Your task to perform on an android device: change the clock style Image 0: 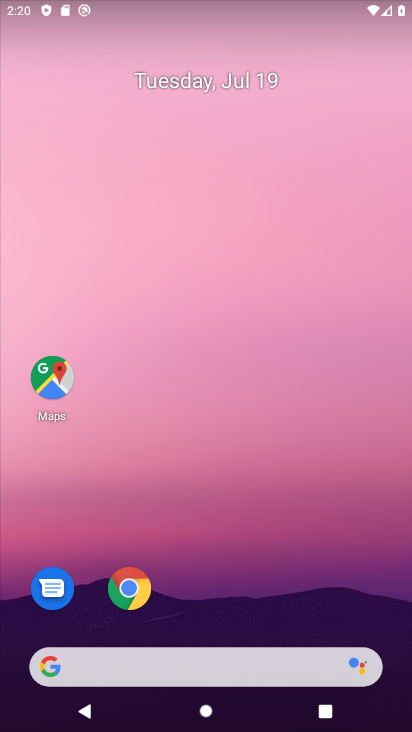
Step 0: drag from (210, 510) to (214, 140)
Your task to perform on an android device: change the clock style Image 1: 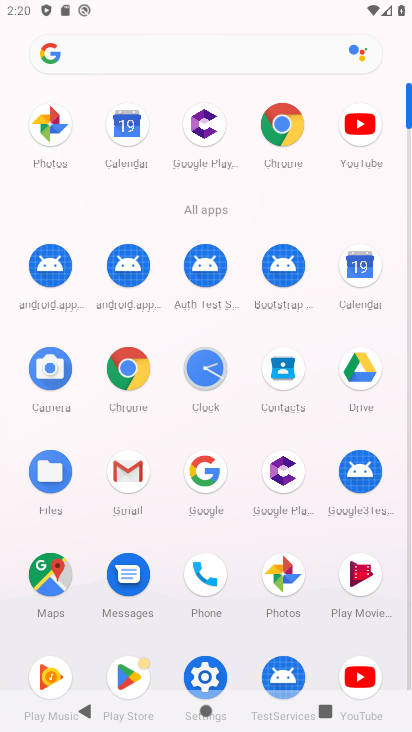
Step 1: click (207, 371)
Your task to perform on an android device: change the clock style Image 2: 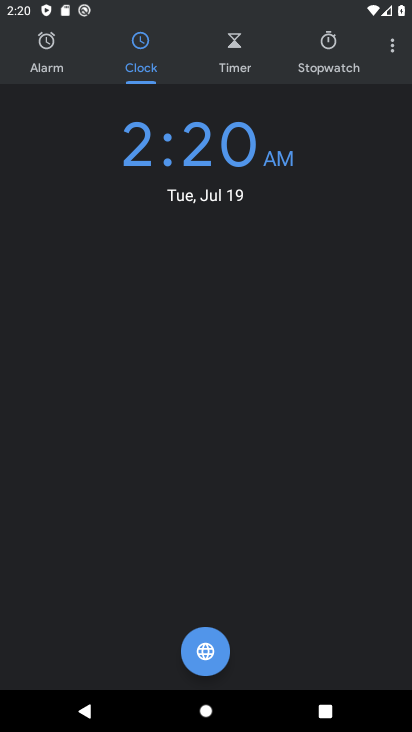
Step 2: click (391, 53)
Your task to perform on an android device: change the clock style Image 3: 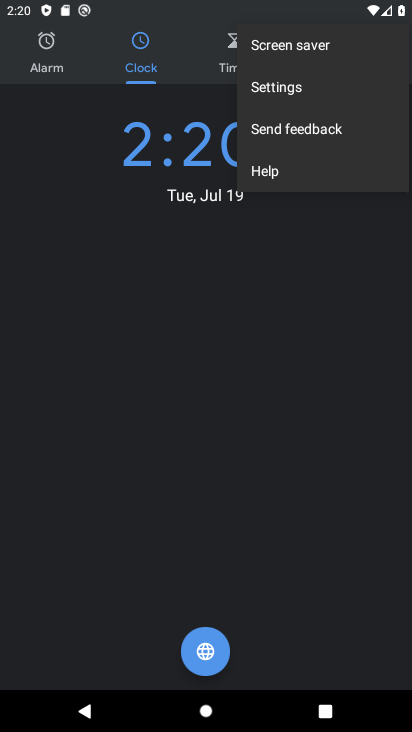
Step 3: click (285, 91)
Your task to perform on an android device: change the clock style Image 4: 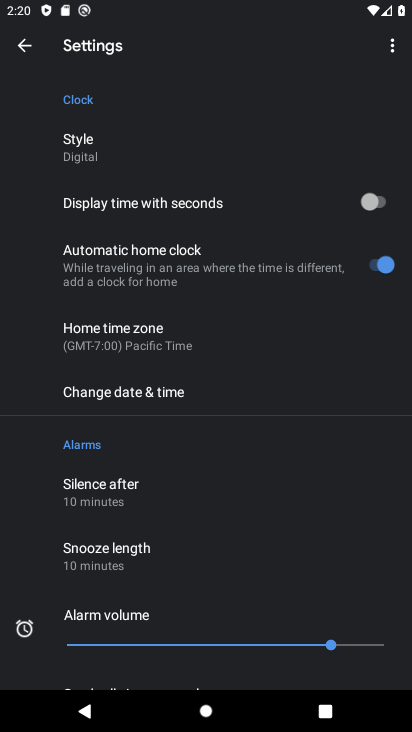
Step 4: click (75, 156)
Your task to perform on an android device: change the clock style Image 5: 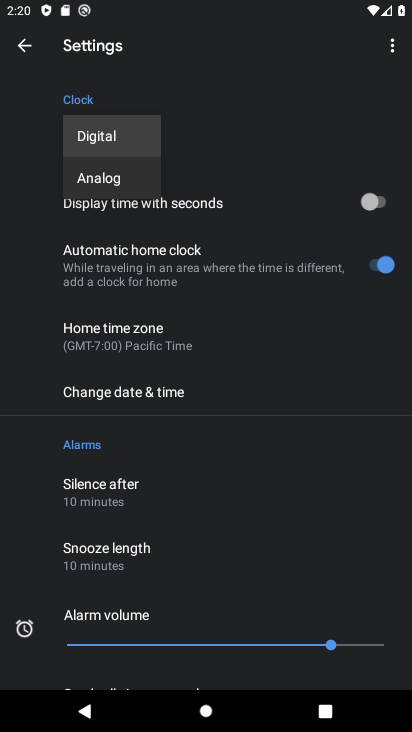
Step 5: click (89, 179)
Your task to perform on an android device: change the clock style Image 6: 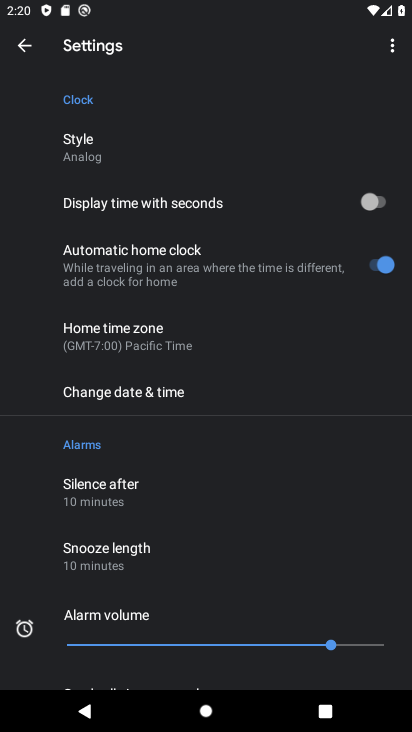
Step 6: task complete